Your task to perform on an android device: open a bookmark in the chrome app Image 0: 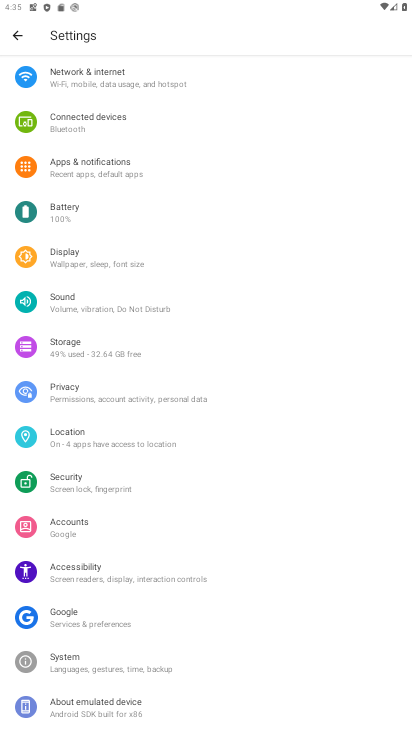
Step 0: press home button
Your task to perform on an android device: open a bookmark in the chrome app Image 1: 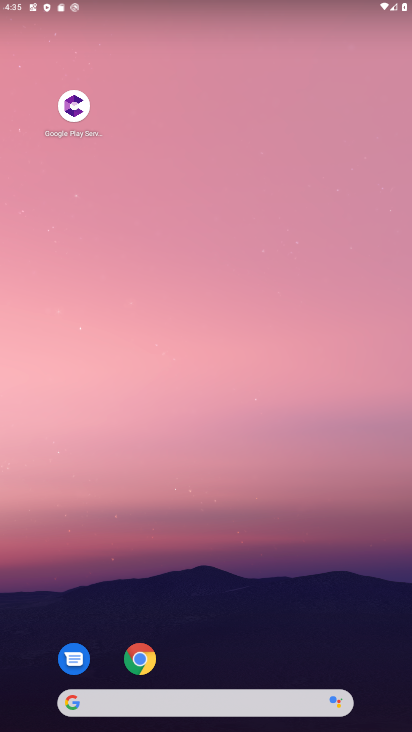
Step 1: drag from (271, 635) to (373, 7)
Your task to perform on an android device: open a bookmark in the chrome app Image 2: 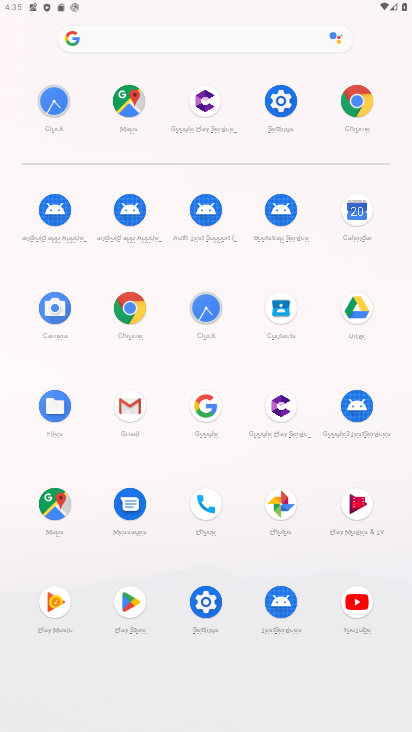
Step 2: click (130, 313)
Your task to perform on an android device: open a bookmark in the chrome app Image 3: 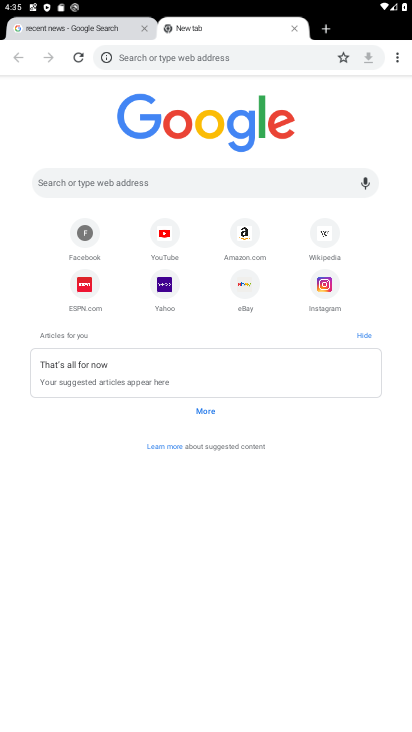
Step 3: task complete